Your task to perform on an android device: turn on airplane mode Image 0: 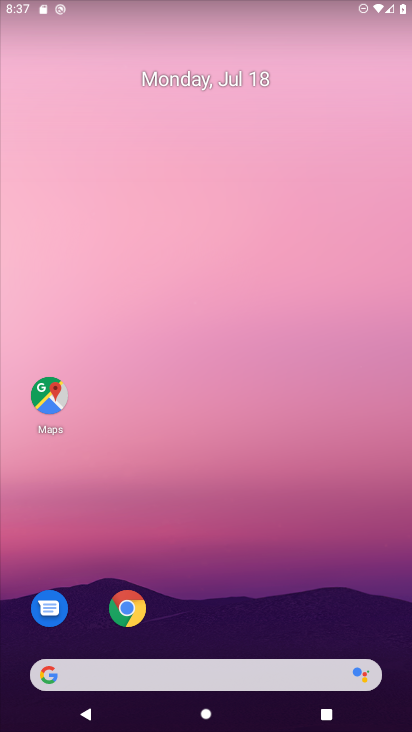
Step 0: drag from (286, 643) to (266, 145)
Your task to perform on an android device: turn on airplane mode Image 1: 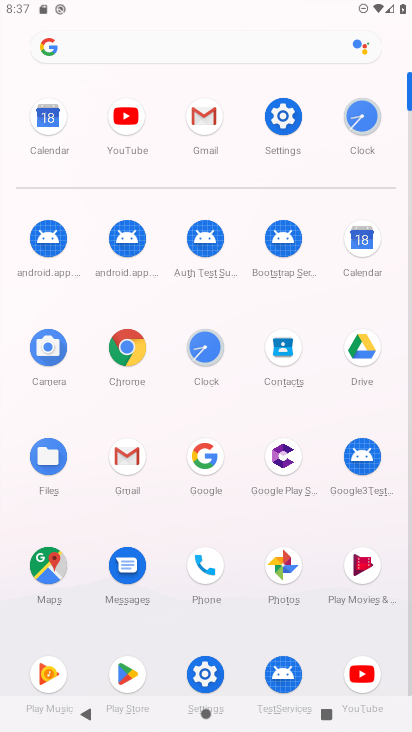
Step 1: click (287, 105)
Your task to perform on an android device: turn on airplane mode Image 2: 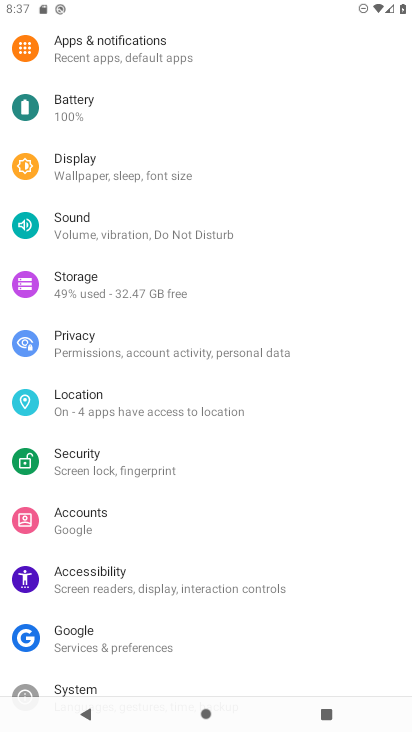
Step 2: drag from (174, 83) to (253, 620)
Your task to perform on an android device: turn on airplane mode Image 3: 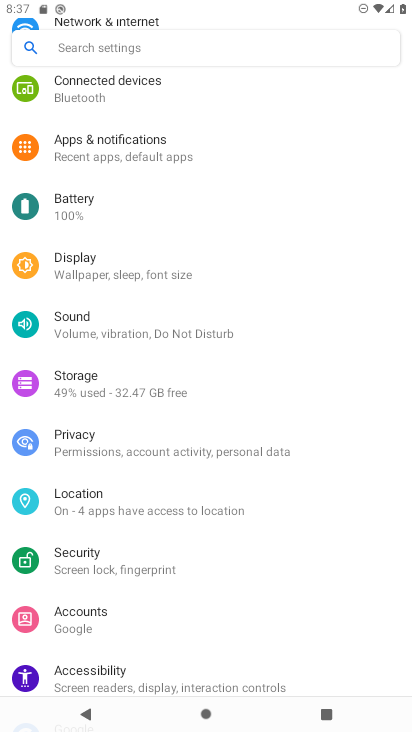
Step 3: drag from (196, 177) to (249, 486)
Your task to perform on an android device: turn on airplane mode Image 4: 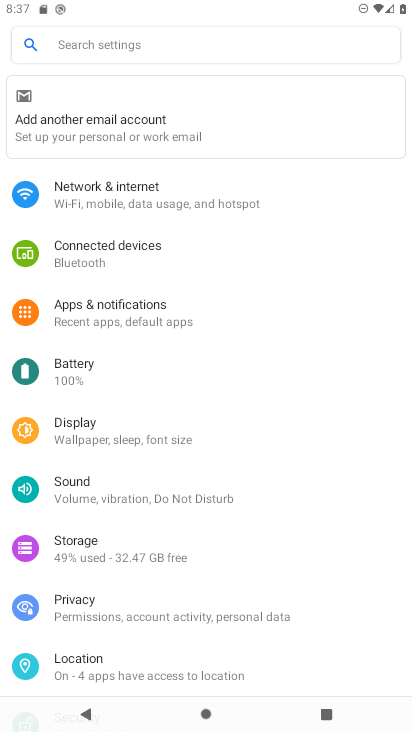
Step 4: click (304, 200)
Your task to perform on an android device: turn on airplane mode Image 5: 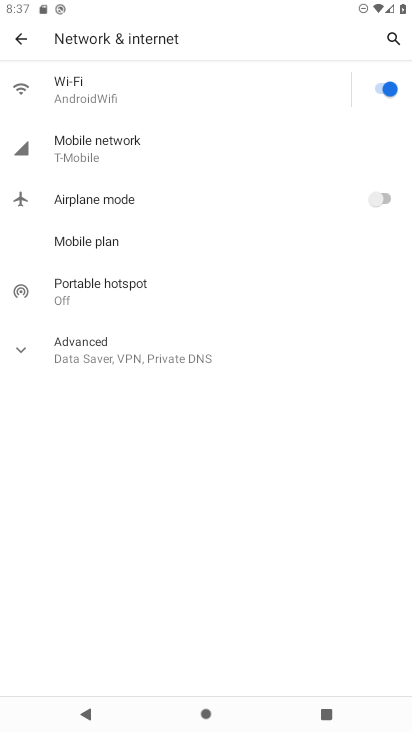
Step 5: click (378, 193)
Your task to perform on an android device: turn on airplane mode Image 6: 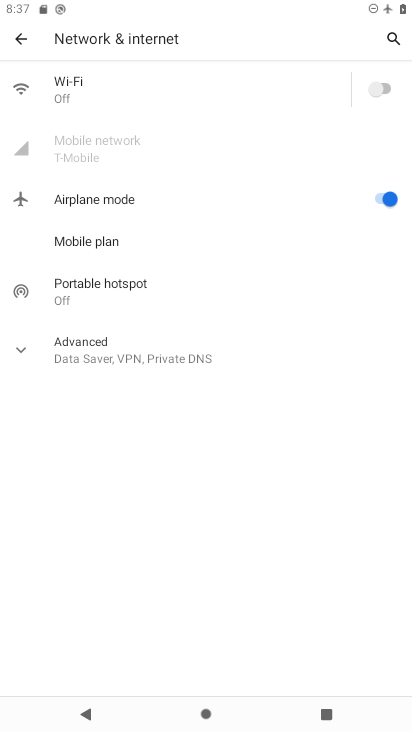
Step 6: task complete